Your task to perform on an android device: add a label to a message in the gmail app Image 0: 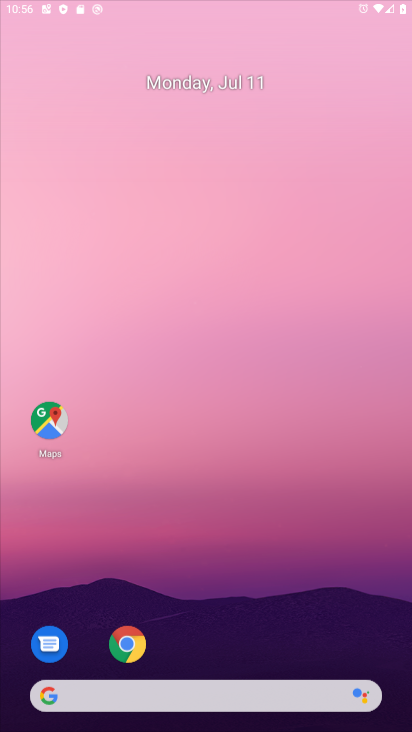
Step 0: press home button
Your task to perform on an android device: add a label to a message in the gmail app Image 1: 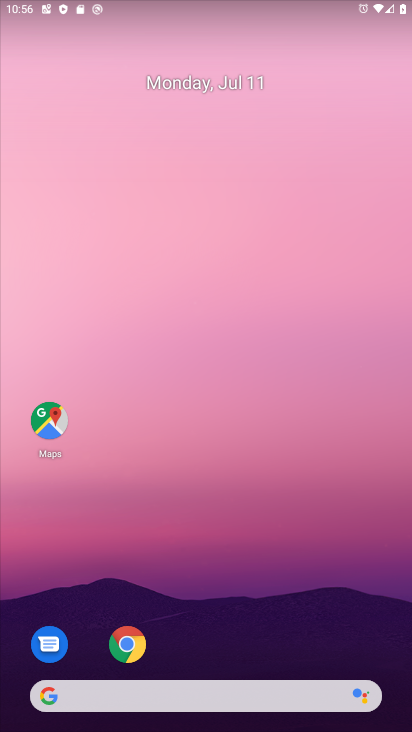
Step 1: drag from (219, 653) to (241, 41)
Your task to perform on an android device: add a label to a message in the gmail app Image 2: 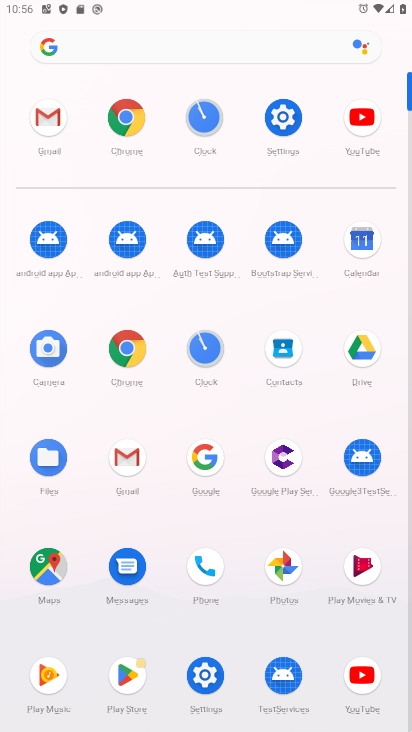
Step 2: click (127, 450)
Your task to perform on an android device: add a label to a message in the gmail app Image 3: 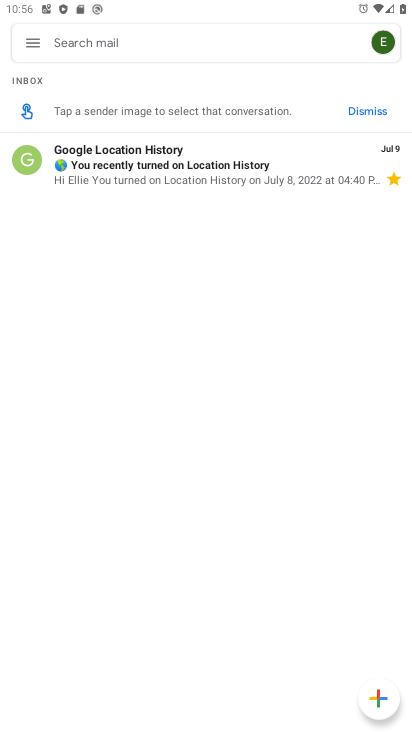
Step 3: click (27, 153)
Your task to perform on an android device: add a label to a message in the gmail app Image 4: 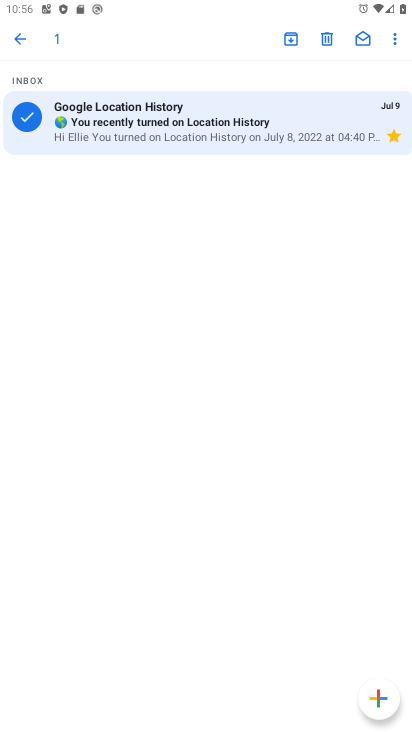
Step 4: click (392, 39)
Your task to perform on an android device: add a label to a message in the gmail app Image 5: 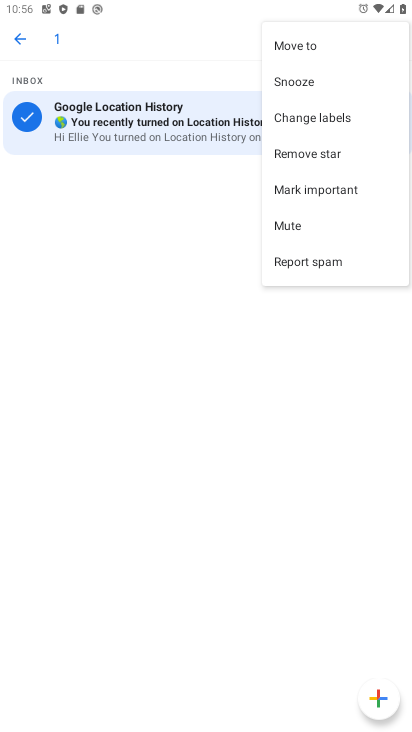
Step 5: click (356, 115)
Your task to perform on an android device: add a label to a message in the gmail app Image 6: 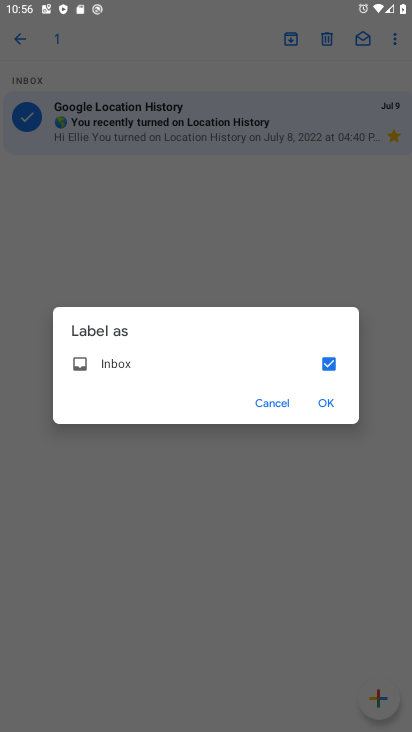
Step 6: click (326, 359)
Your task to perform on an android device: add a label to a message in the gmail app Image 7: 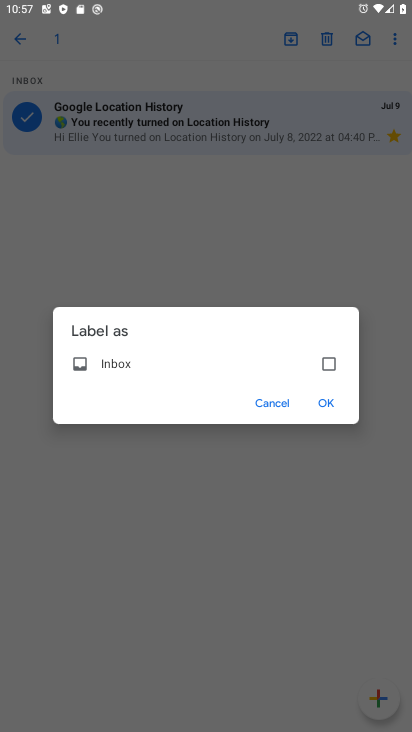
Step 7: click (324, 396)
Your task to perform on an android device: add a label to a message in the gmail app Image 8: 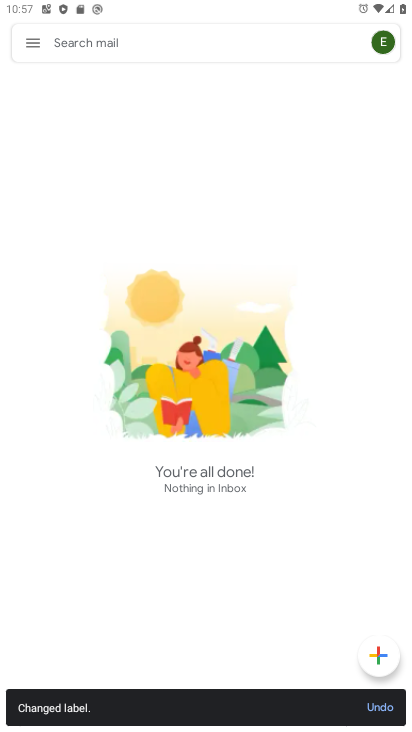
Step 8: task complete